Your task to perform on an android device: Open the Play Movies app and select the watchlist tab. Image 0: 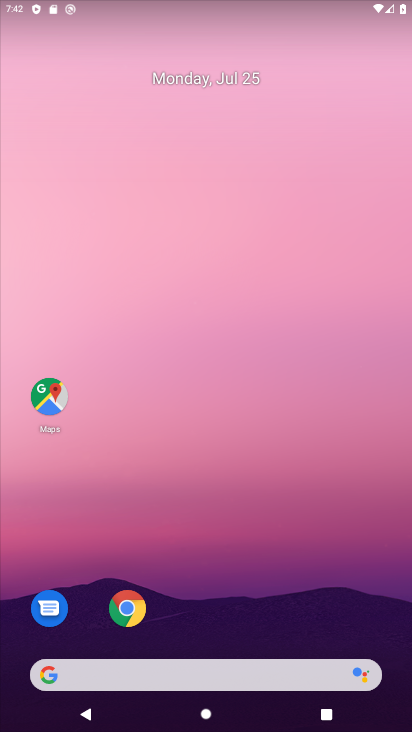
Step 0: drag from (165, 590) to (207, 107)
Your task to perform on an android device: Open the Play Movies app and select the watchlist tab. Image 1: 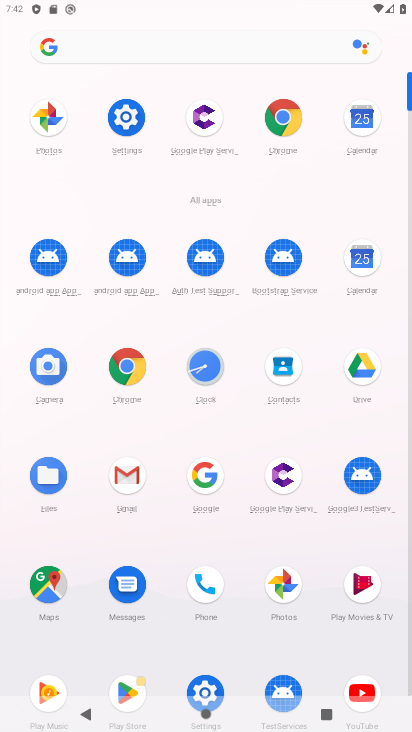
Step 1: click (357, 591)
Your task to perform on an android device: Open the Play Movies app and select the watchlist tab. Image 2: 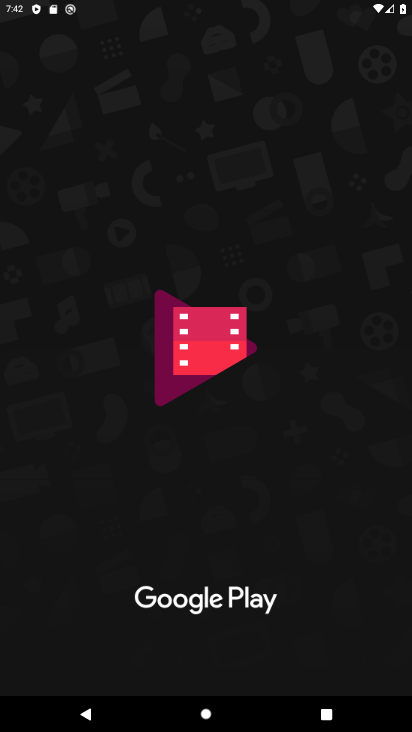
Step 2: drag from (230, 609) to (254, 193)
Your task to perform on an android device: Open the Play Movies app and select the watchlist tab. Image 3: 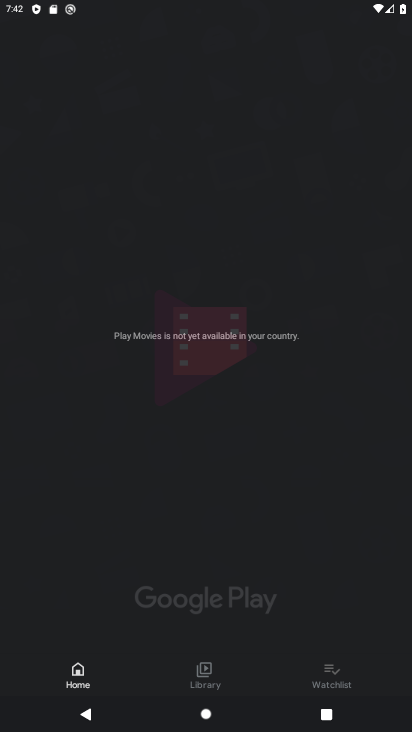
Step 3: drag from (208, 547) to (215, 234)
Your task to perform on an android device: Open the Play Movies app and select the watchlist tab. Image 4: 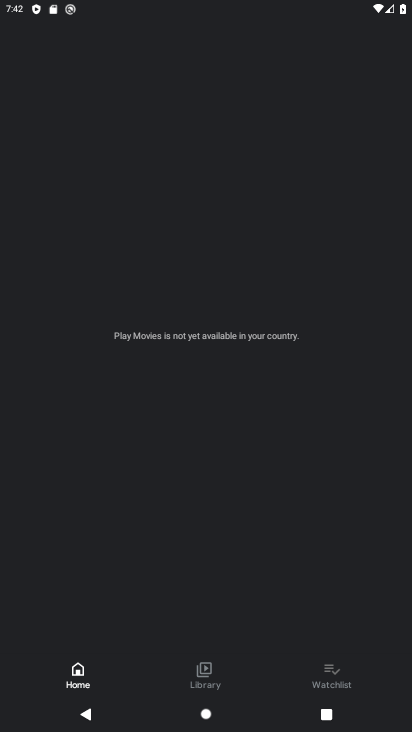
Step 4: click (332, 689)
Your task to perform on an android device: Open the Play Movies app and select the watchlist tab. Image 5: 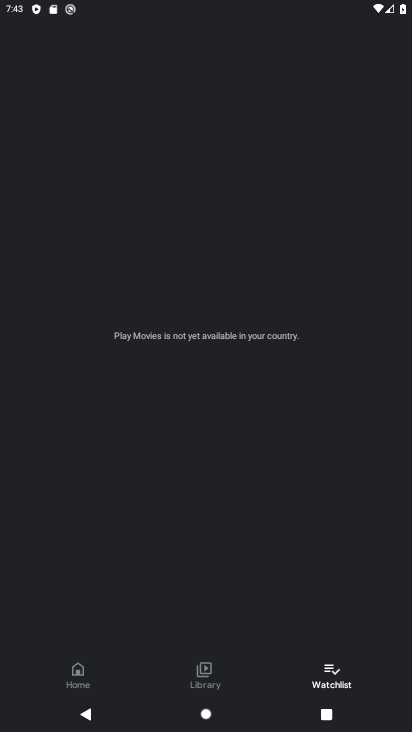
Step 5: task complete